Your task to perform on an android device: Go to calendar. Show me events next week Image 0: 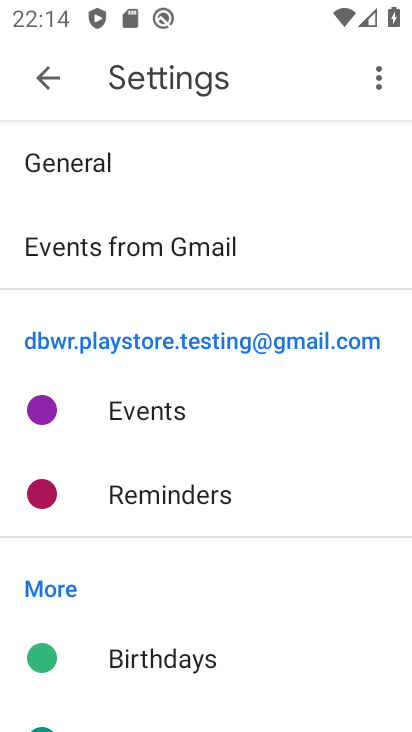
Step 0: press home button
Your task to perform on an android device: Go to calendar. Show me events next week Image 1: 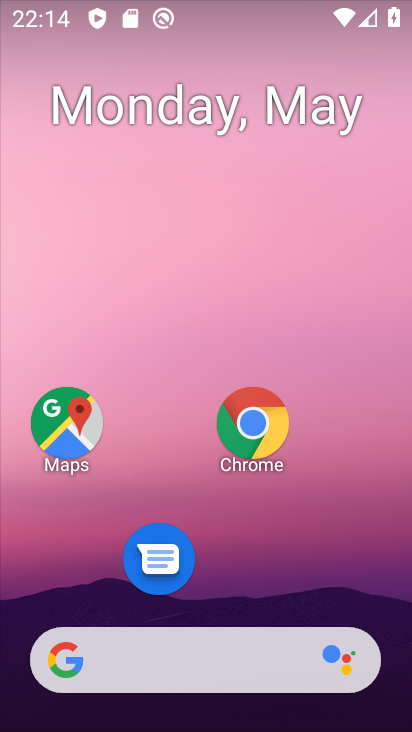
Step 1: click (192, 44)
Your task to perform on an android device: Go to calendar. Show me events next week Image 2: 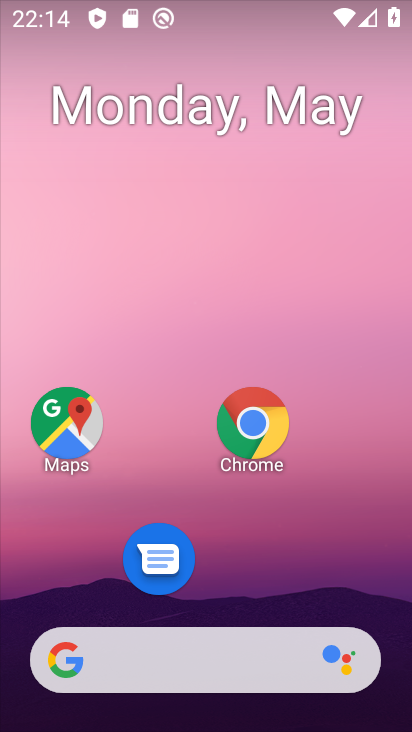
Step 2: click (160, 81)
Your task to perform on an android device: Go to calendar. Show me events next week Image 3: 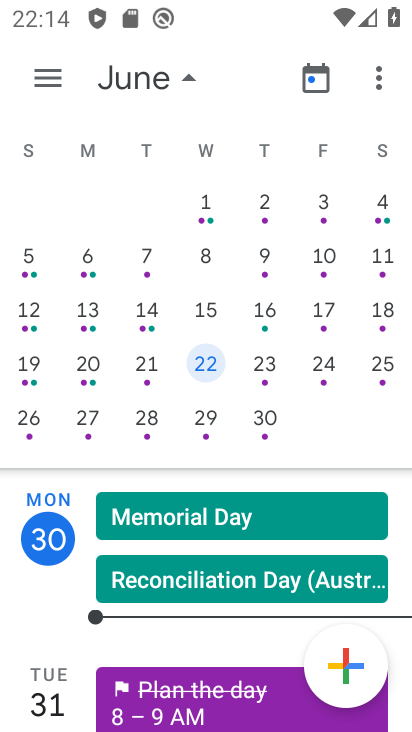
Step 3: click (199, 269)
Your task to perform on an android device: Go to calendar. Show me events next week Image 4: 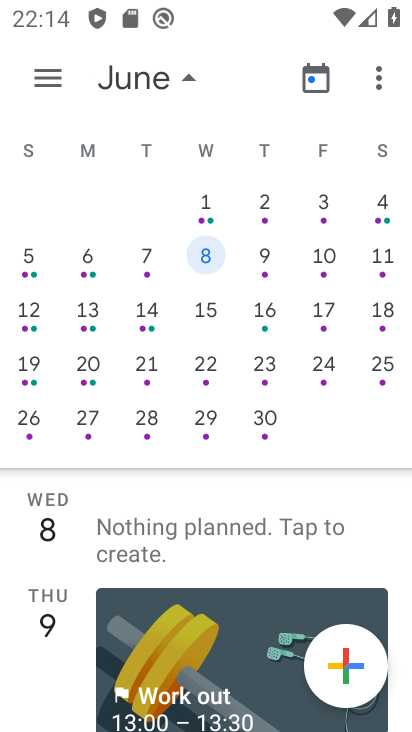
Step 4: task complete